Your task to perform on an android device: Show the shopping cart on walmart. Search for macbook pro 13 inch on walmart, select the first entry, add it to the cart, then select checkout. Image 0: 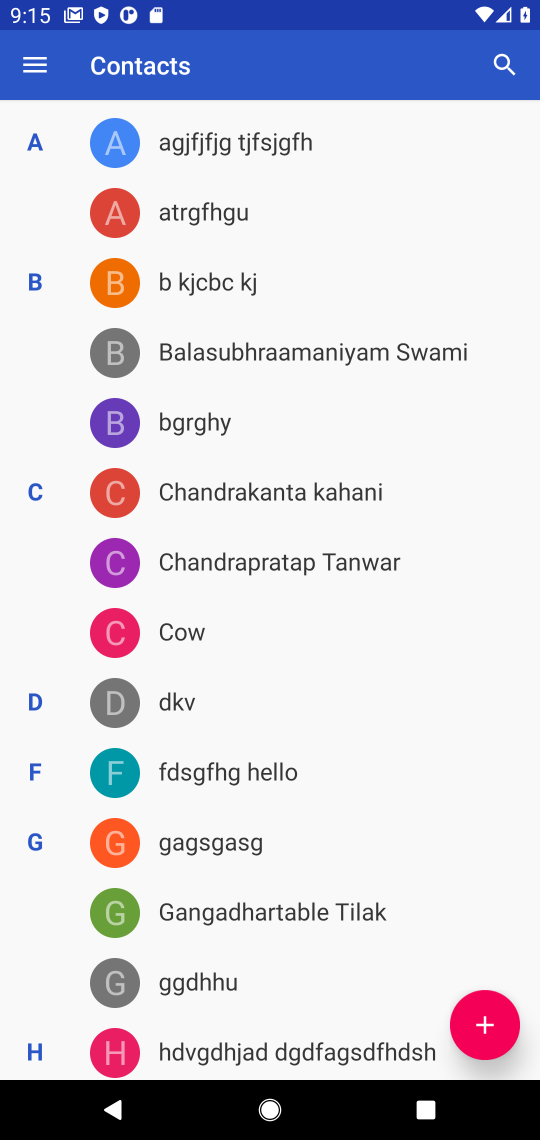
Step 0: press home button
Your task to perform on an android device: Show the shopping cart on walmart. Search for macbook pro 13 inch on walmart, select the first entry, add it to the cart, then select checkout. Image 1: 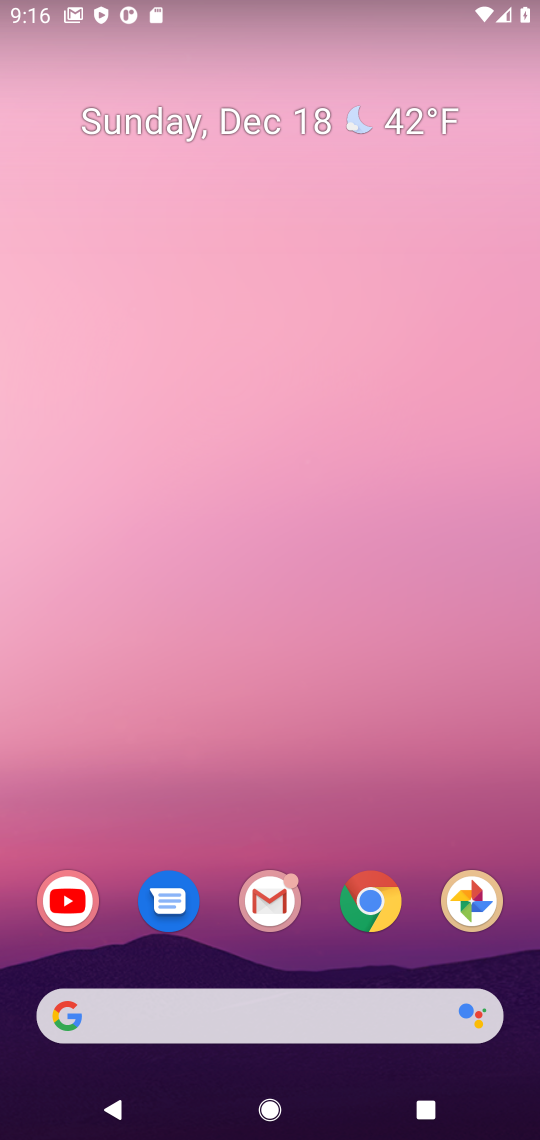
Step 1: click (361, 914)
Your task to perform on an android device: Show the shopping cart on walmart. Search for macbook pro 13 inch on walmart, select the first entry, add it to the cart, then select checkout. Image 2: 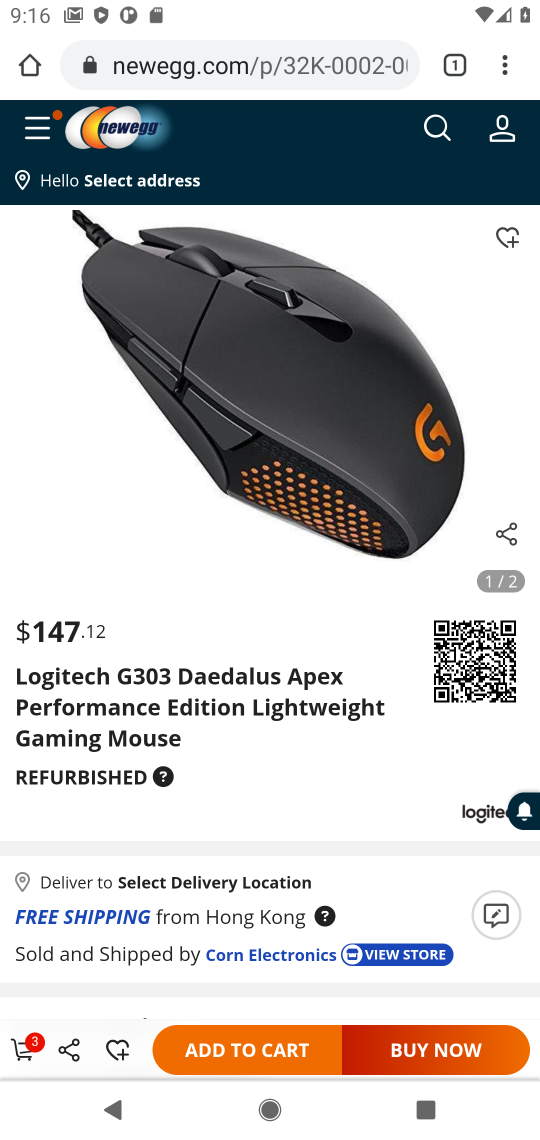
Step 2: click (195, 81)
Your task to perform on an android device: Show the shopping cart on walmart. Search for macbook pro 13 inch on walmart, select the first entry, add it to the cart, then select checkout. Image 3: 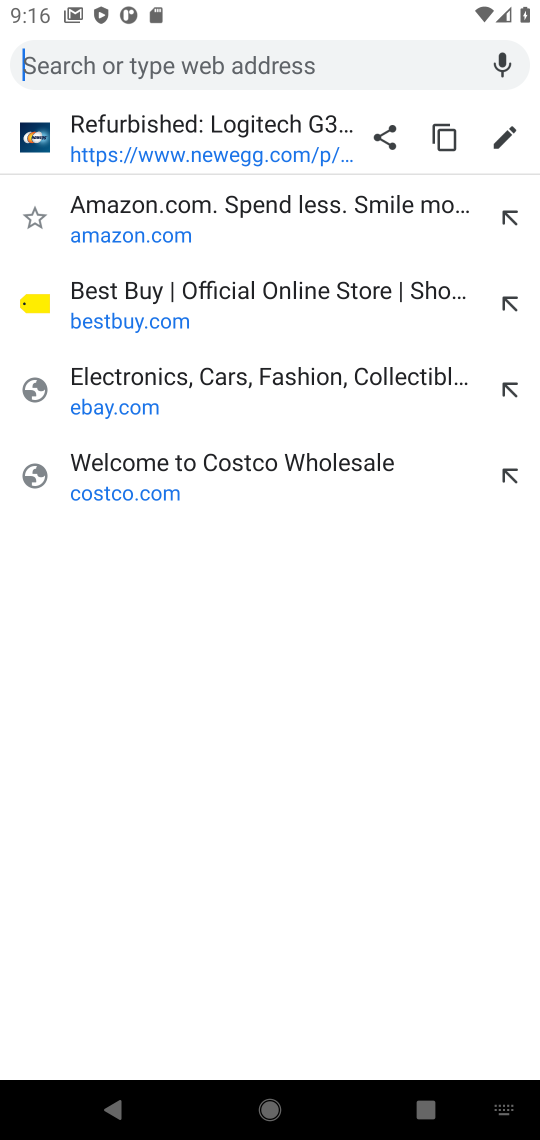
Step 3: type "walmart"
Your task to perform on an android device: Show the shopping cart on walmart. Search for macbook pro 13 inch on walmart, select the first entry, add it to the cart, then select checkout. Image 4: 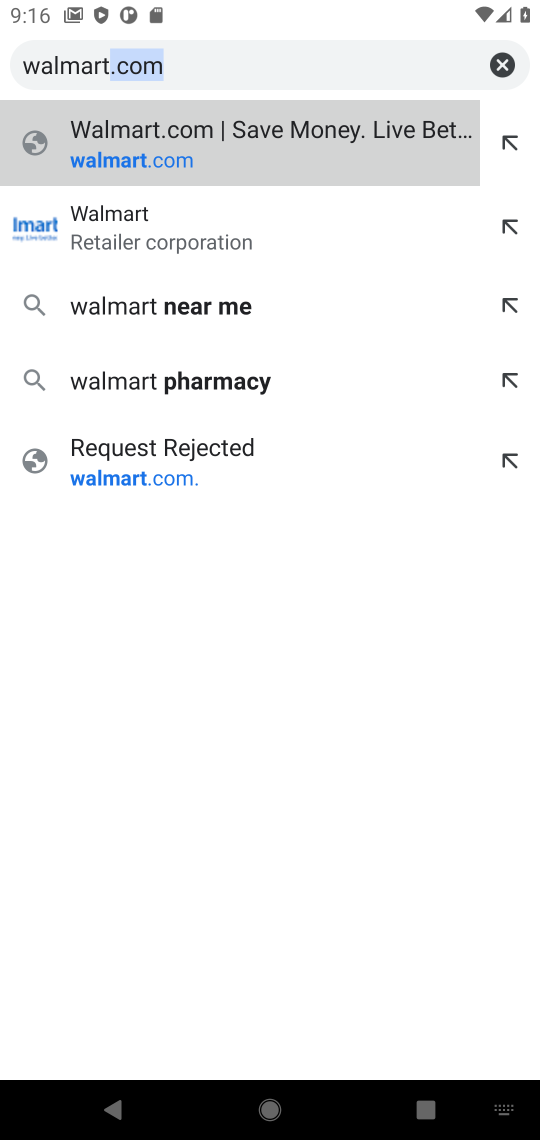
Step 4: click (278, 145)
Your task to perform on an android device: Show the shopping cart on walmart. Search for macbook pro 13 inch on walmart, select the first entry, add it to the cart, then select checkout. Image 5: 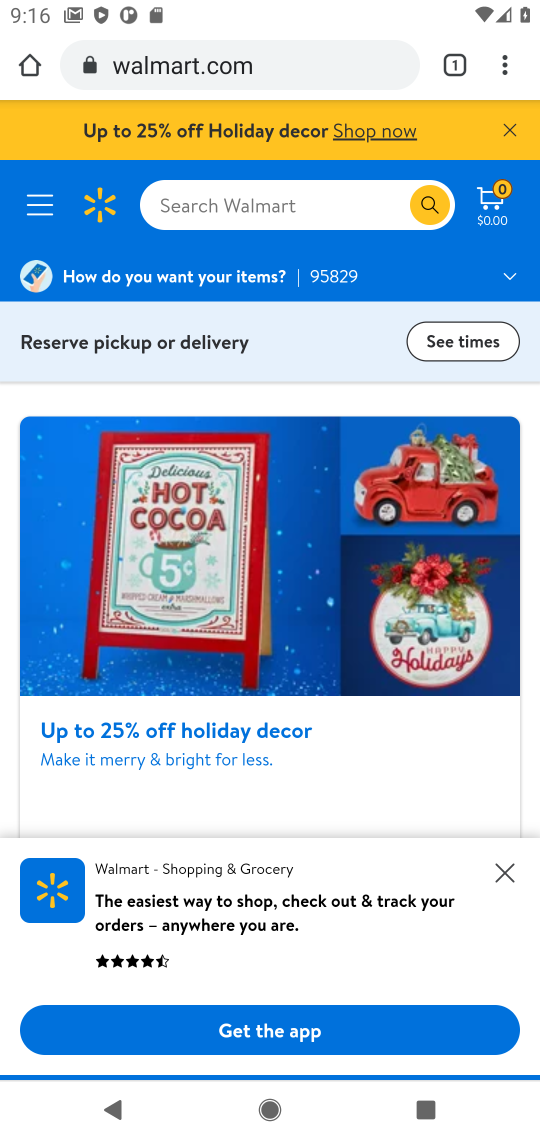
Step 5: click (217, 216)
Your task to perform on an android device: Show the shopping cart on walmart. Search for macbook pro 13 inch on walmart, select the first entry, add it to the cart, then select checkout. Image 6: 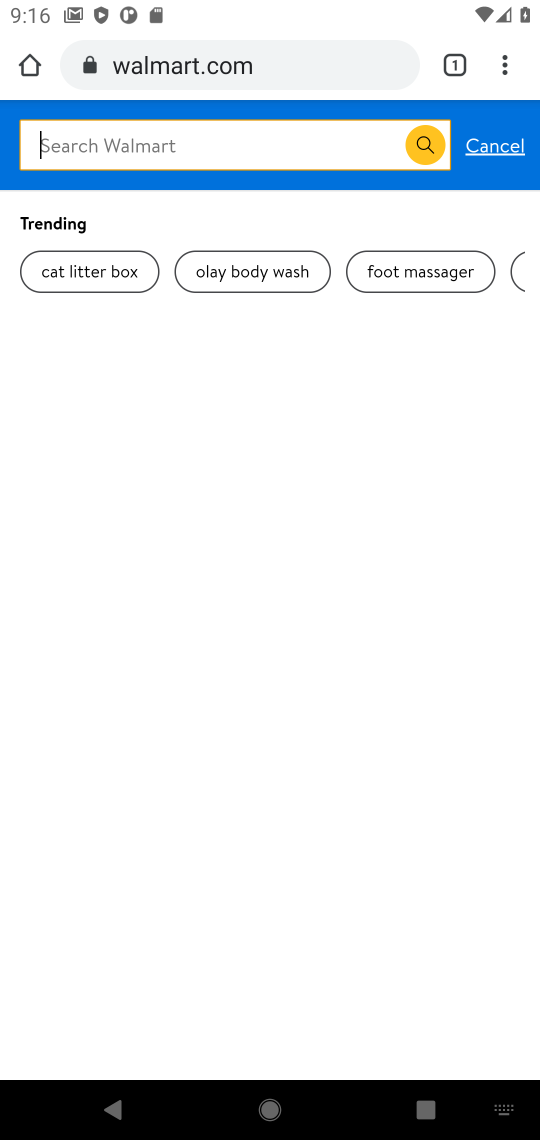
Step 6: type "macbook pro 133"
Your task to perform on an android device: Show the shopping cart on walmart. Search for macbook pro 13 inch on walmart, select the first entry, add it to the cart, then select checkout. Image 7: 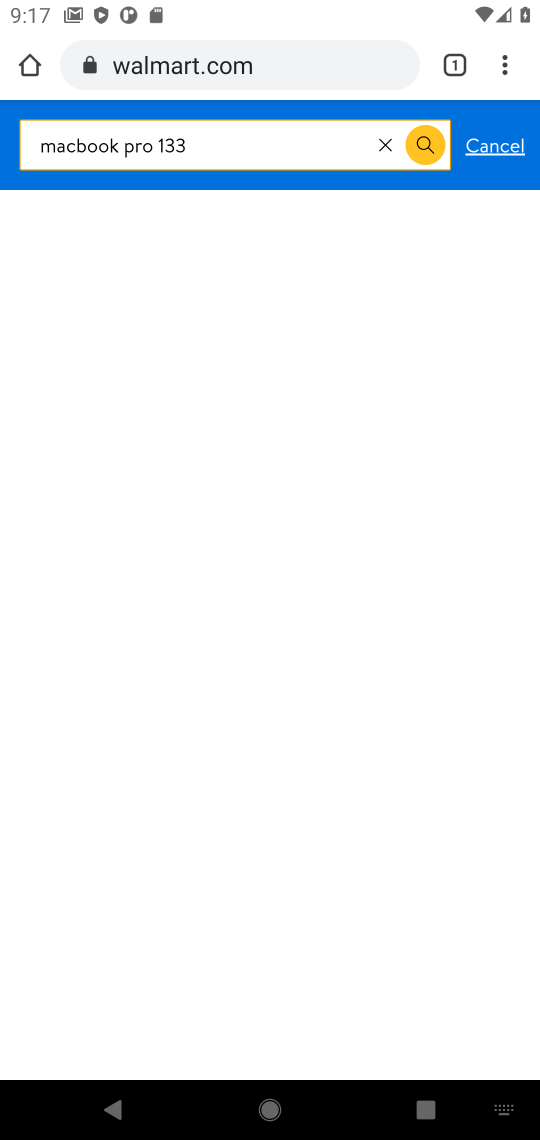
Step 7: click (413, 163)
Your task to perform on an android device: Show the shopping cart on walmart. Search for macbook pro 13 inch on walmart, select the first entry, add it to the cart, then select checkout. Image 8: 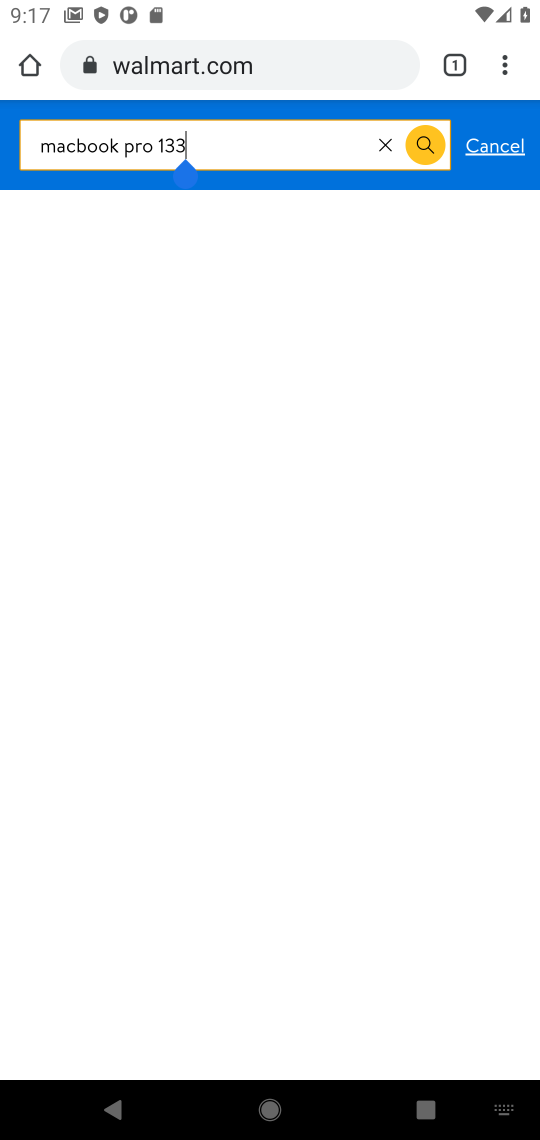
Step 8: task complete